Your task to perform on an android device: Clear the shopping cart on target. Image 0: 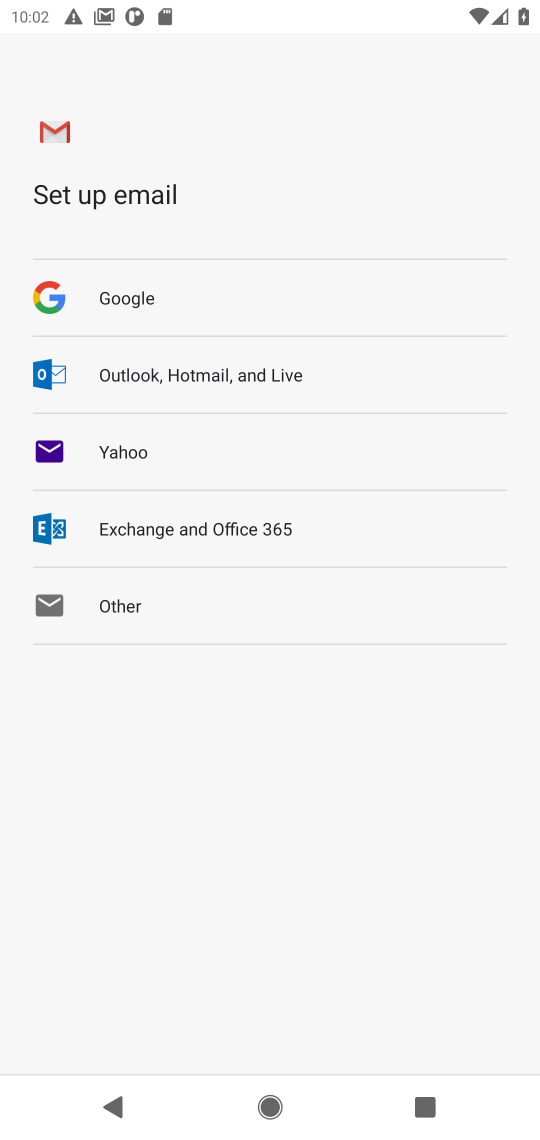
Step 0: press home button
Your task to perform on an android device: Clear the shopping cart on target. Image 1: 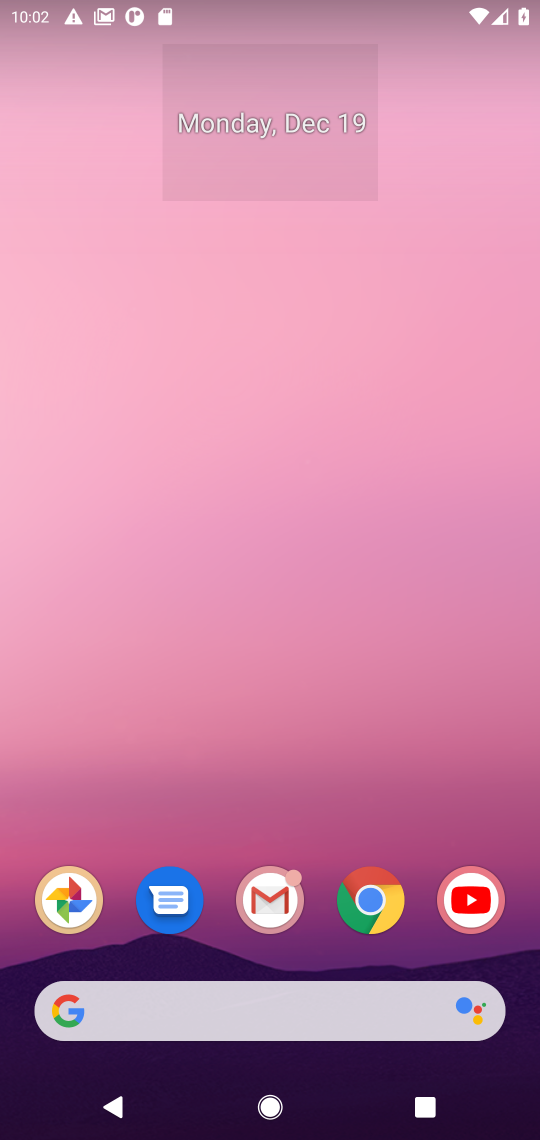
Step 1: click (374, 926)
Your task to perform on an android device: Clear the shopping cart on target. Image 2: 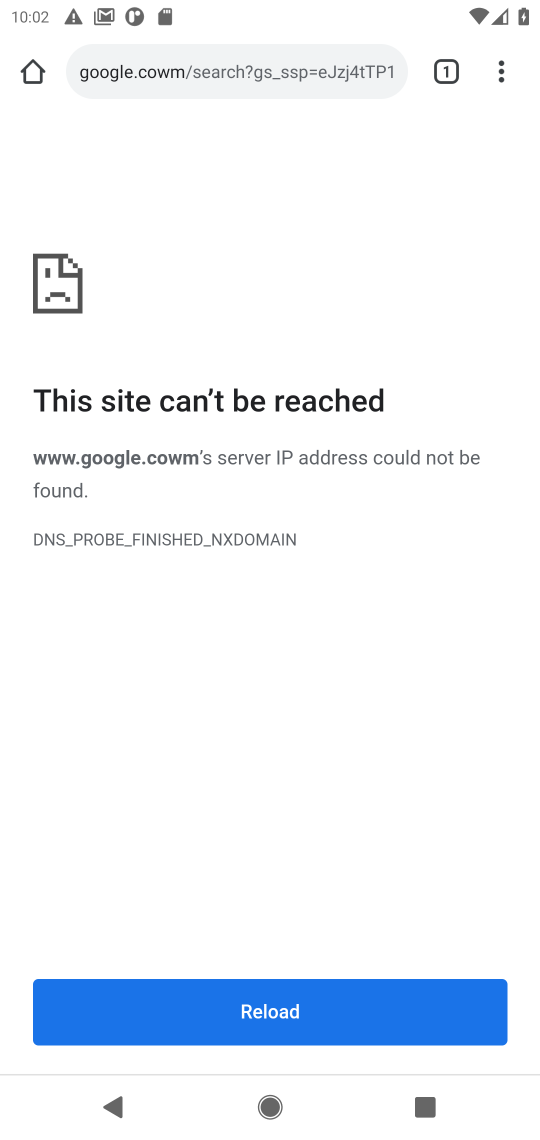
Step 2: click (249, 96)
Your task to perform on an android device: Clear the shopping cart on target. Image 3: 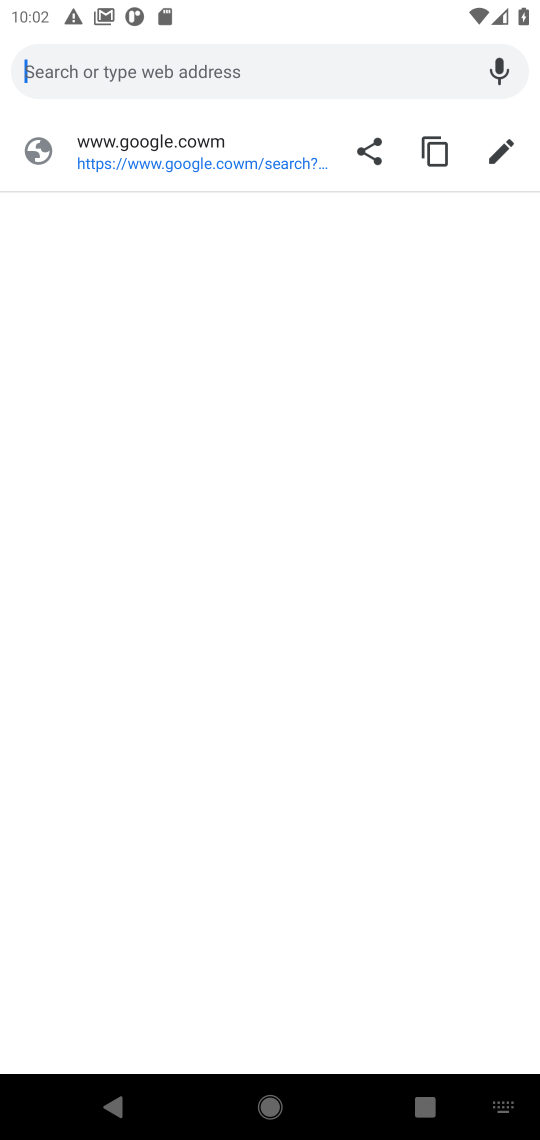
Step 3: type "target"
Your task to perform on an android device: Clear the shopping cart on target. Image 4: 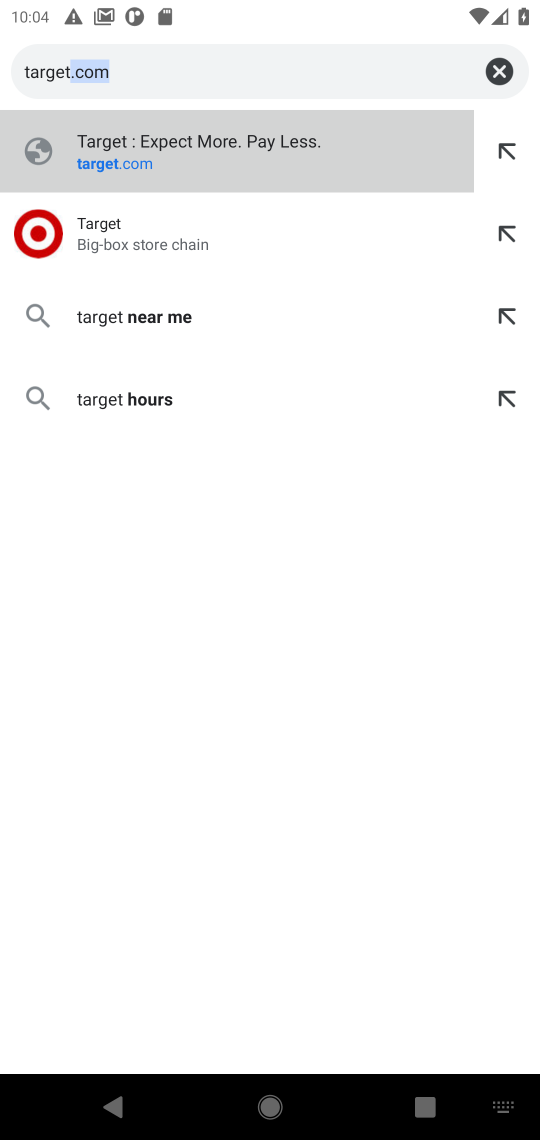
Step 4: click (267, 171)
Your task to perform on an android device: Clear the shopping cart on target. Image 5: 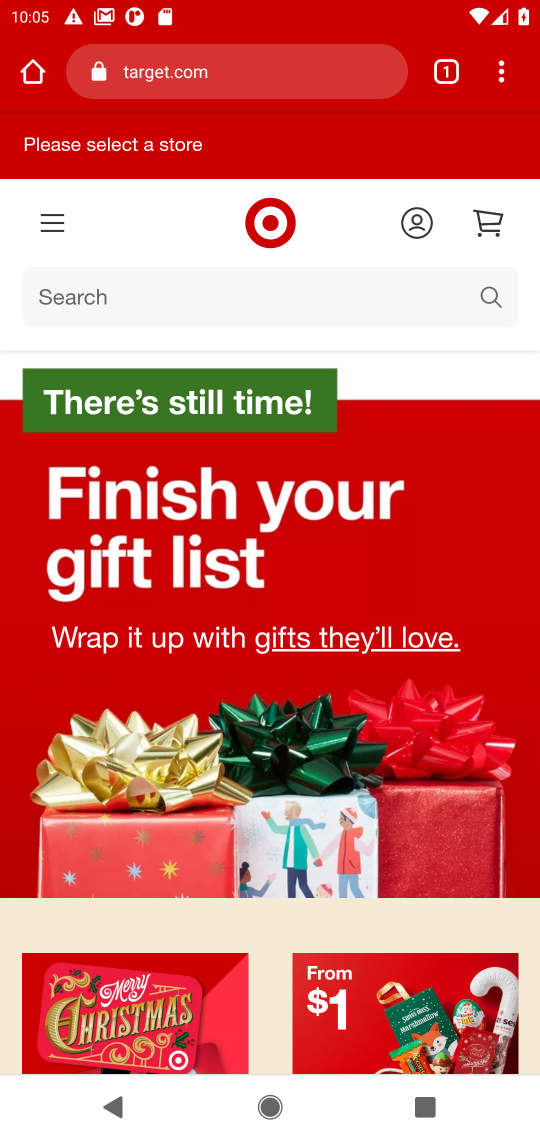
Step 5: task complete